Your task to perform on an android device: find photos in the google photos app Image 0: 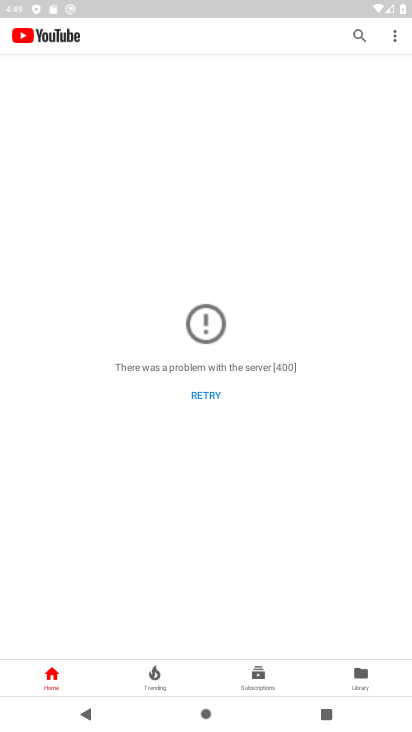
Step 0: press home button
Your task to perform on an android device: find photos in the google photos app Image 1: 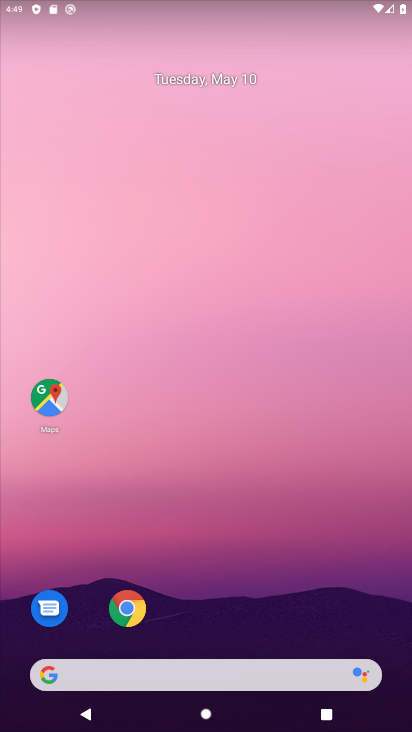
Step 1: drag from (219, 622) to (285, 18)
Your task to perform on an android device: find photos in the google photos app Image 2: 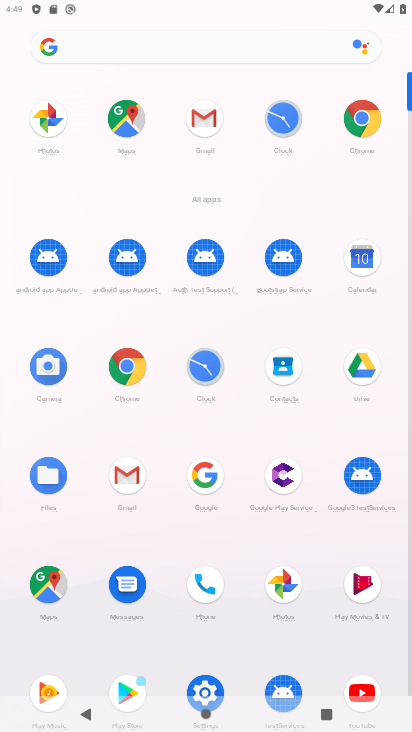
Step 2: click (290, 596)
Your task to perform on an android device: find photos in the google photos app Image 3: 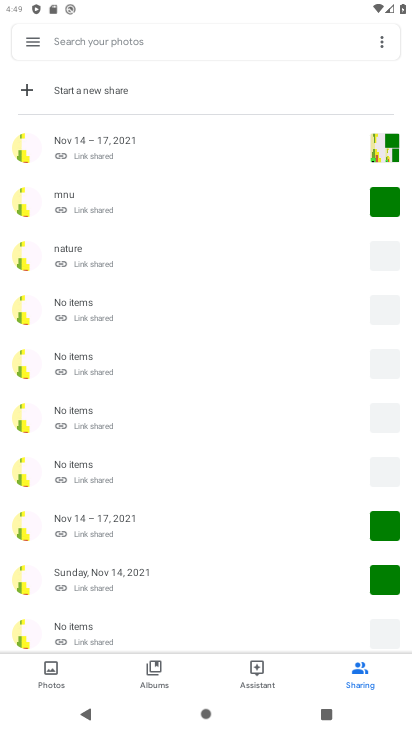
Step 3: click (42, 675)
Your task to perform on an android device: find photos in the google photos app Image 4: 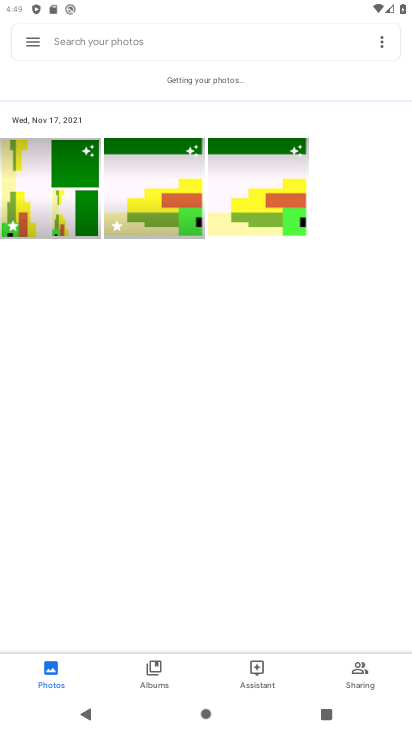
Step 4: click (67, 183)
Your task to perform on an android device: find photos in the google photos app Image 5: 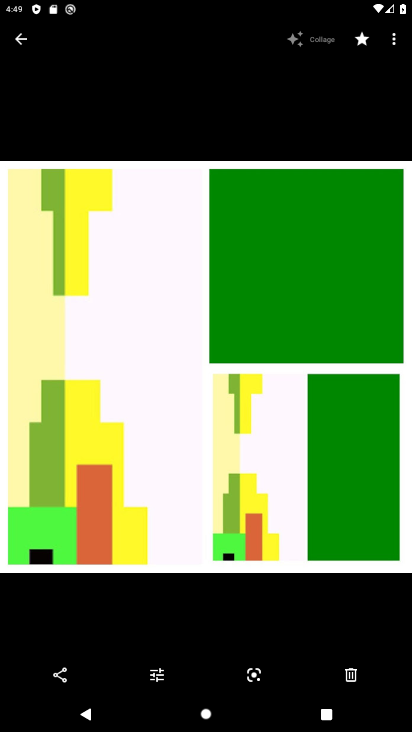
Step 5: task complete